Your task to perform on an android device: open app "ZOOM Cloud Meetings" (install if not already installed) Image 0: 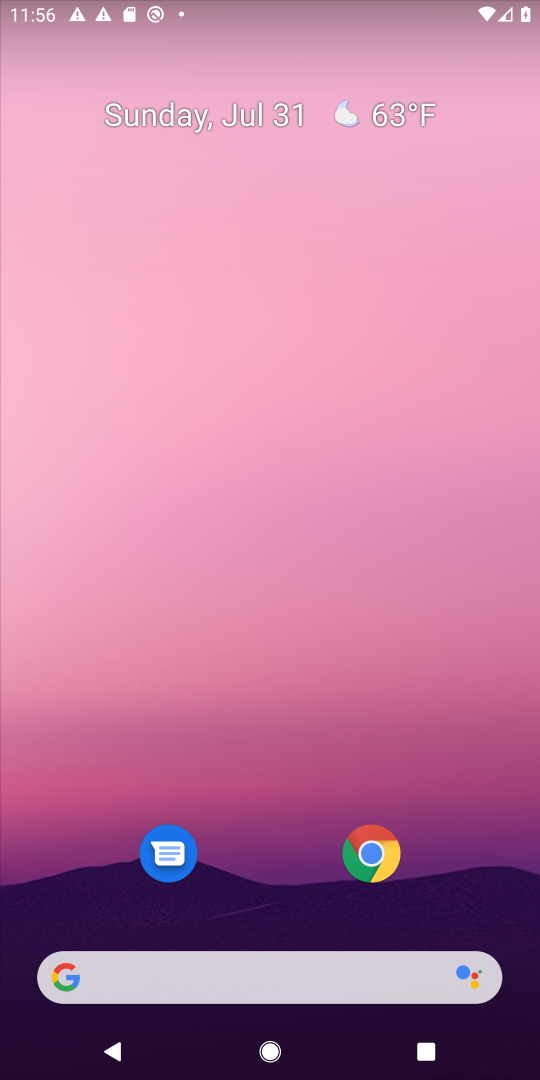
Step 0: drag from (275, 878) to (210, 266)
Your task to perform on an android device: open app "ZOOM Cloud Meetings" (install if not already installed) Image 1: 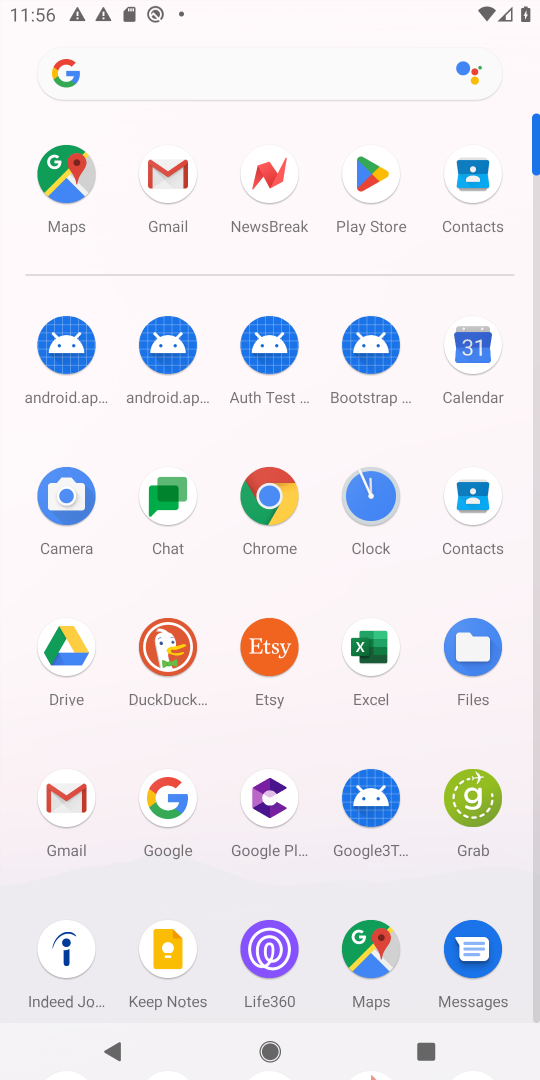
Step 1: click (371, 176)
Your task to perform on an android device: open app "ZOOM Cloud Meetings" (install if not already installed) Image 2: 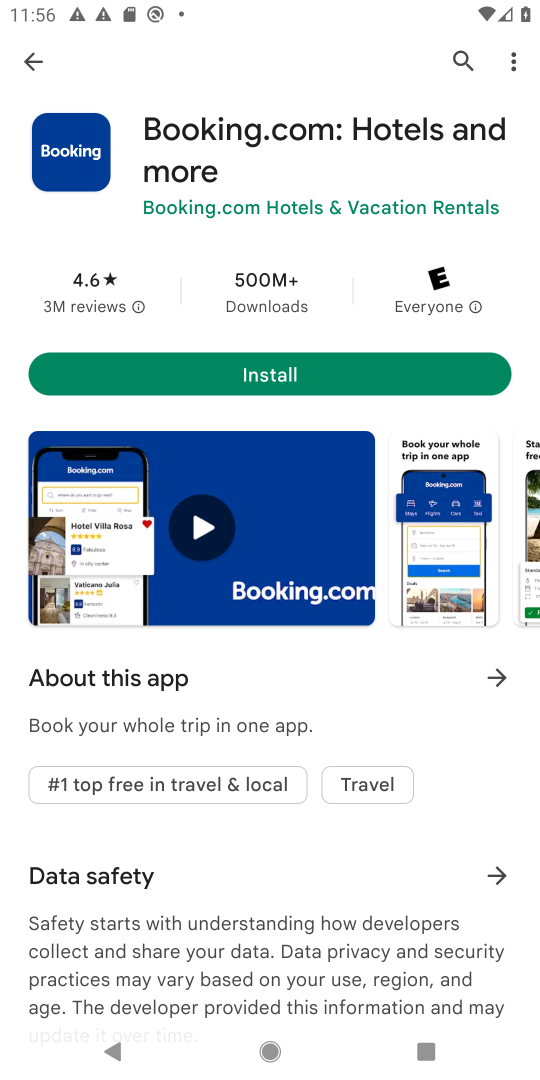
Step 2: click (465, 49)
Your task to perform on an android device: open app "ZOOM Cloud Meetings" (install if not already installed) Image 3: 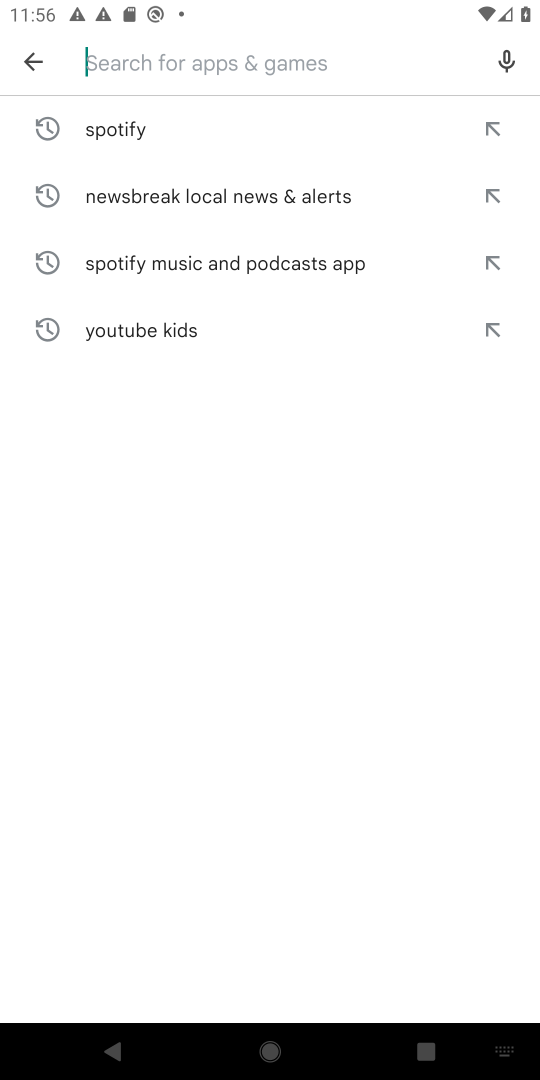
Step 3: type "ZOOM Cloud Meetings"
Your task to perform on an android device: open app "ZOOM Cloud Meetings" (install if not already installed) Image 4: 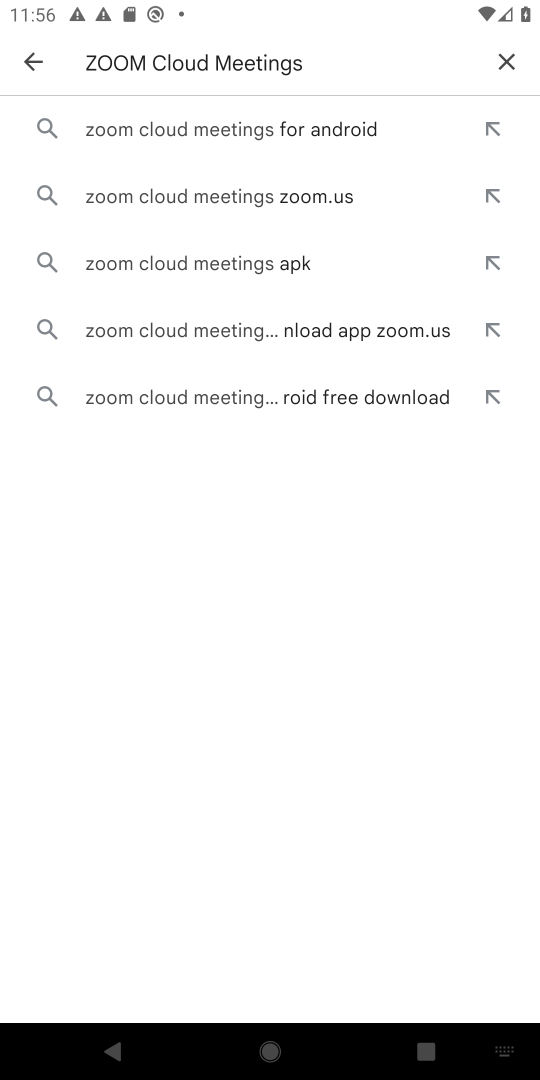
Step 4: click (253, 129)
Your task to perform on an android device: open app "ZOOM Cloud Meetings" (install if not already installed) Image 5: 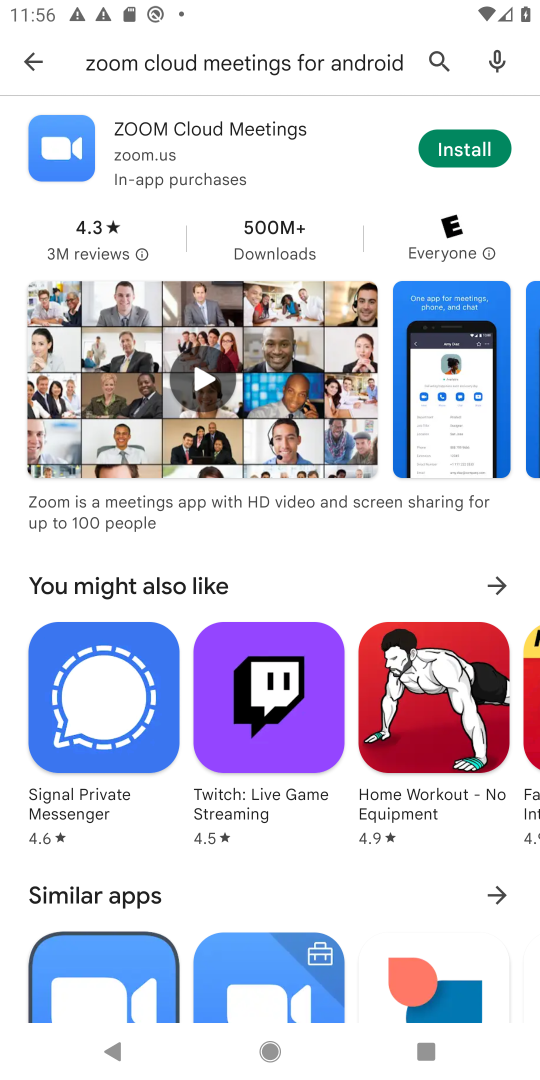
Step 5: click (475, 146)
Your task to perform on an android device: open app "ZOOM Cloud Meetings" (install if not already installed) Image 6: 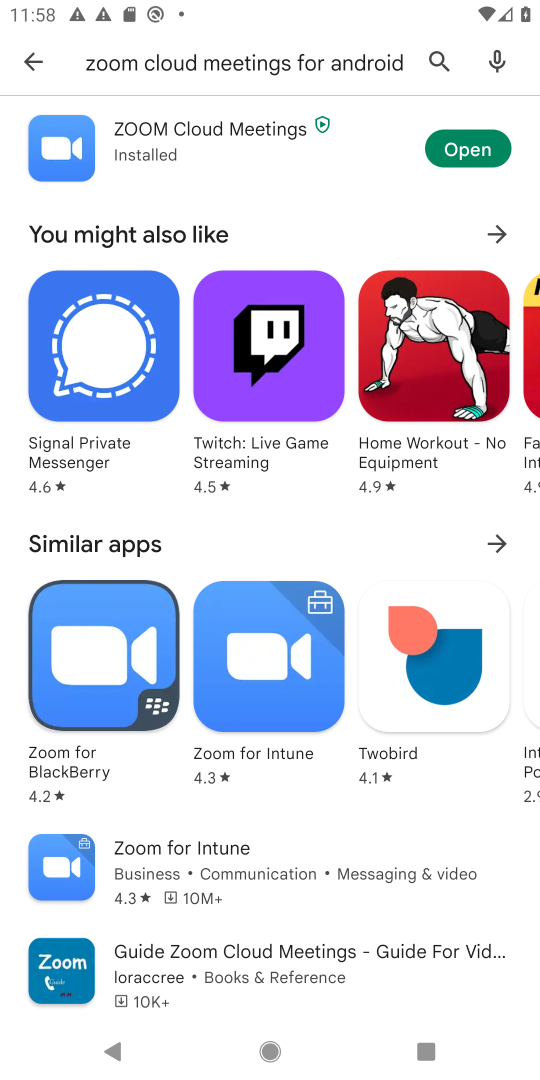
Step 6: task complete